Your task to perform on an android device: Open the Play Movies app and select the watchlist tab. Image 0: 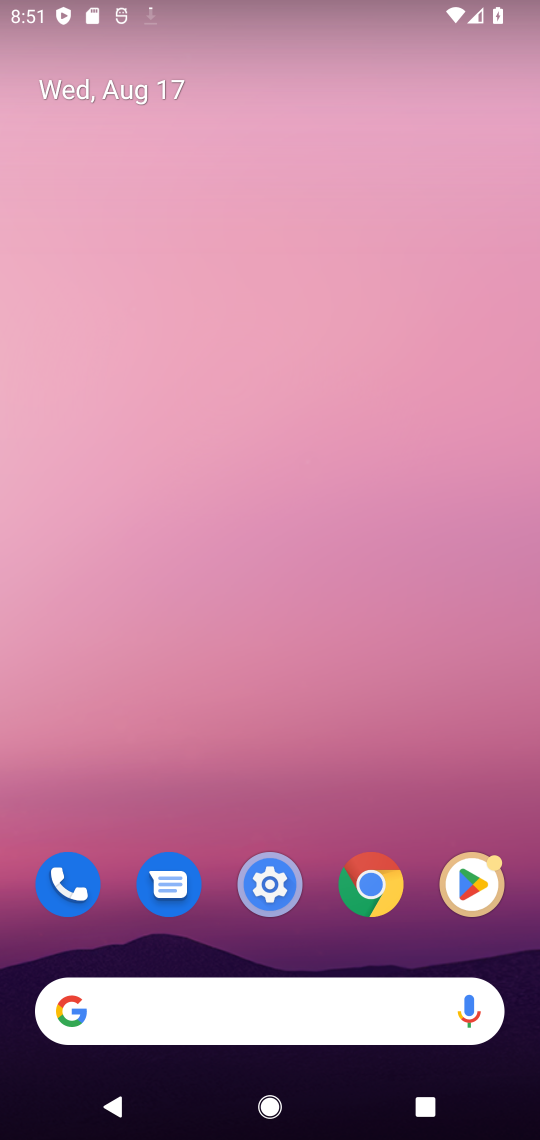
Step 0: drag from (257, 476) to (257, 152)
Your task to perform on an android device: Open the Play Movies app and select the watchlist tab. Image 1: 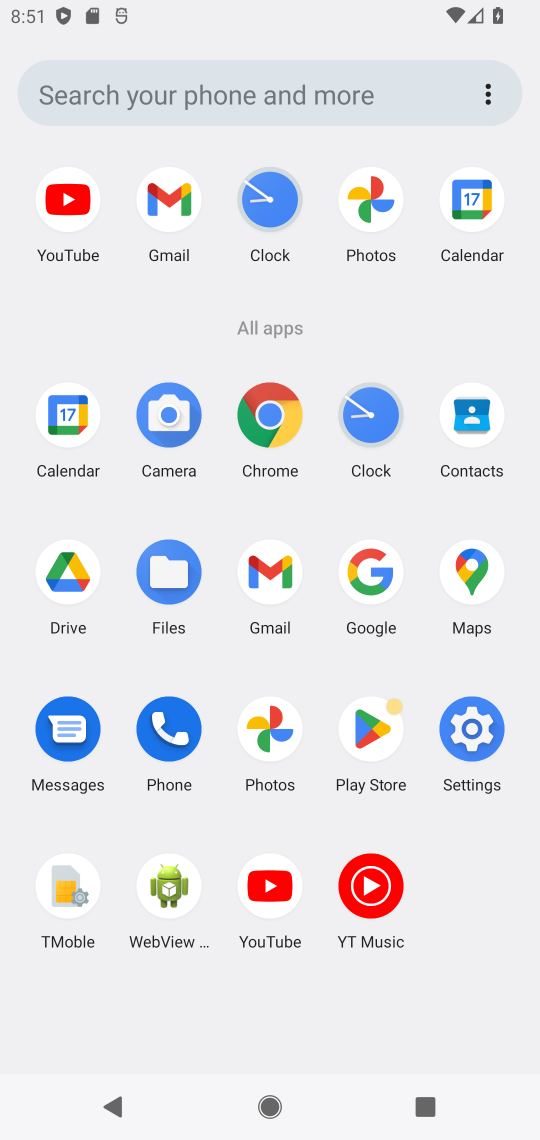
Step 1: task complete